Your task to perform on an android device: Open notification settings Image 0: 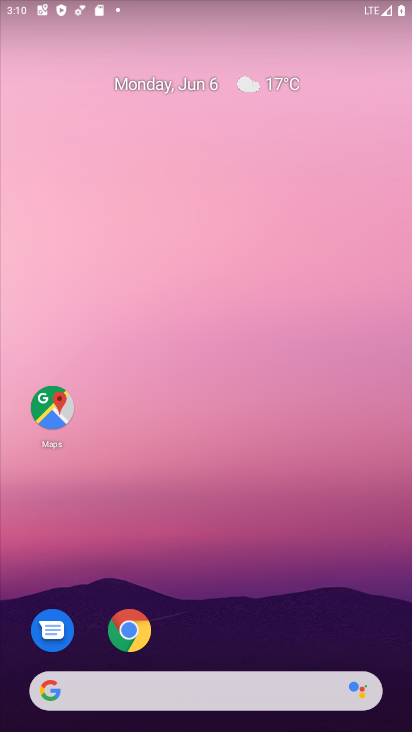
Step 0: drag from (241, 618) to (298, 25)
Your task to perform on an android device: Open notification settings Image 1: 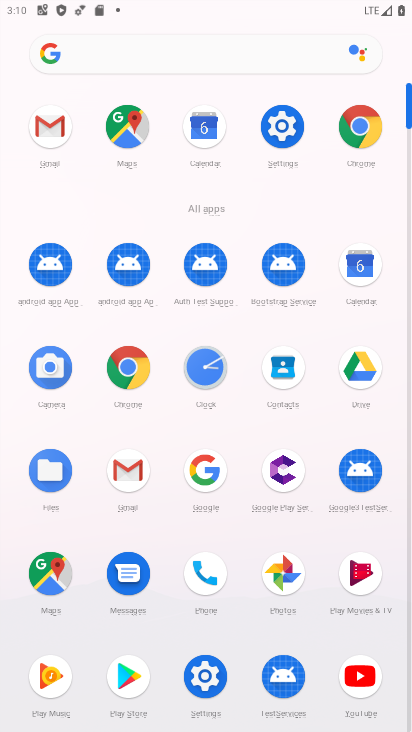
Step 1: click (291, 121)
Your task to perform on an android device: Open notification settings Image 2: 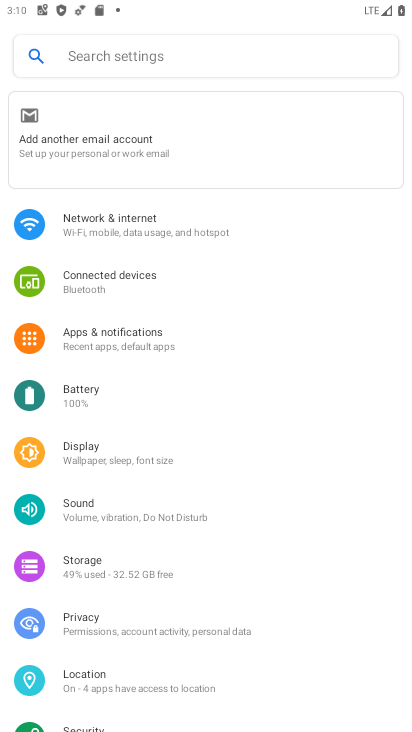
Step 2: click (174, 321)
Your task to perform on an android device: Open notification settings Image 3: 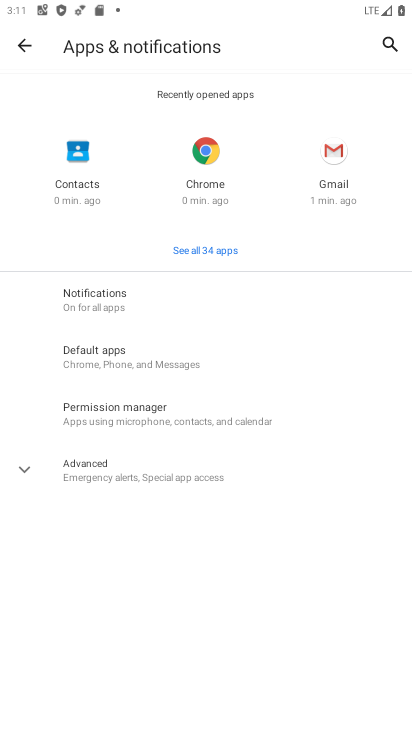
Step 3: task complete